Your task to perform on an android device: open app "PlayWell" (install if not already installed) Image 0: 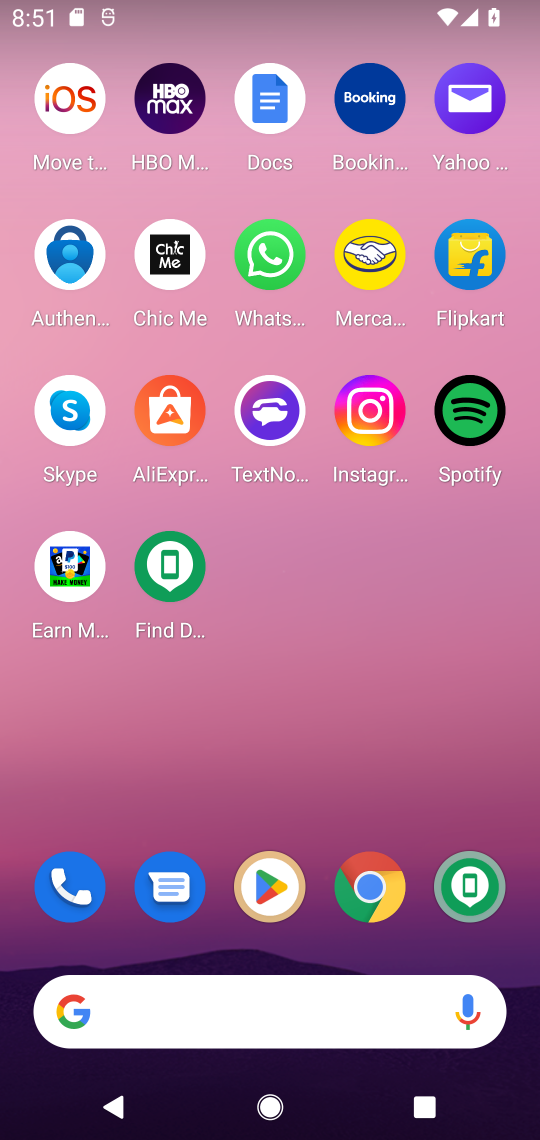
Step 0: click (258, 875)
Your task to perform on an android device: open app "PlayWell" (install if not already installed) Image 1: 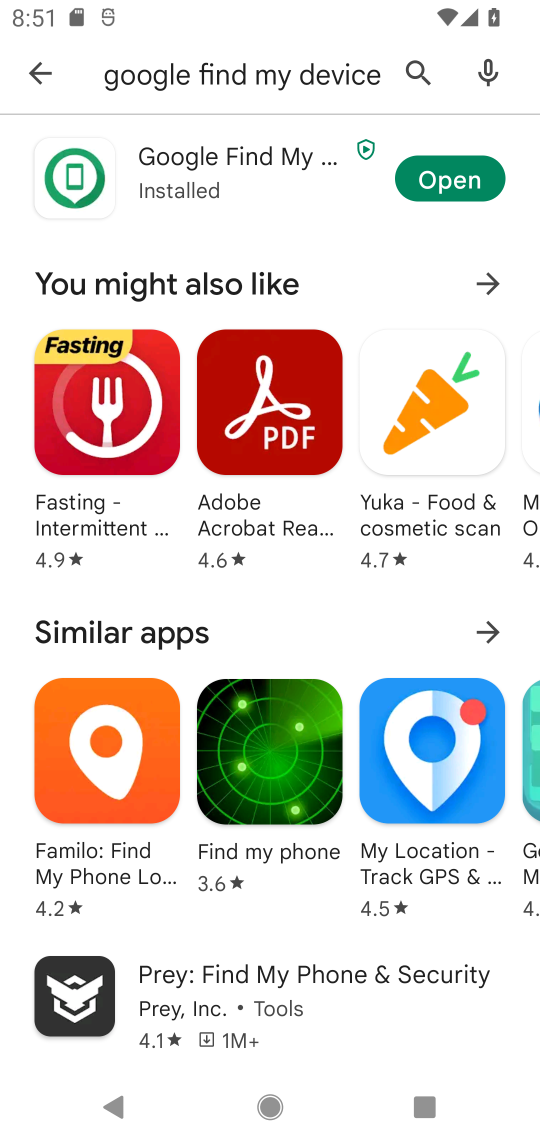
Step 1: click (409, 86)
Your task to perform on an android device: open app "PlayWell" (install if not already installed) Image 2: 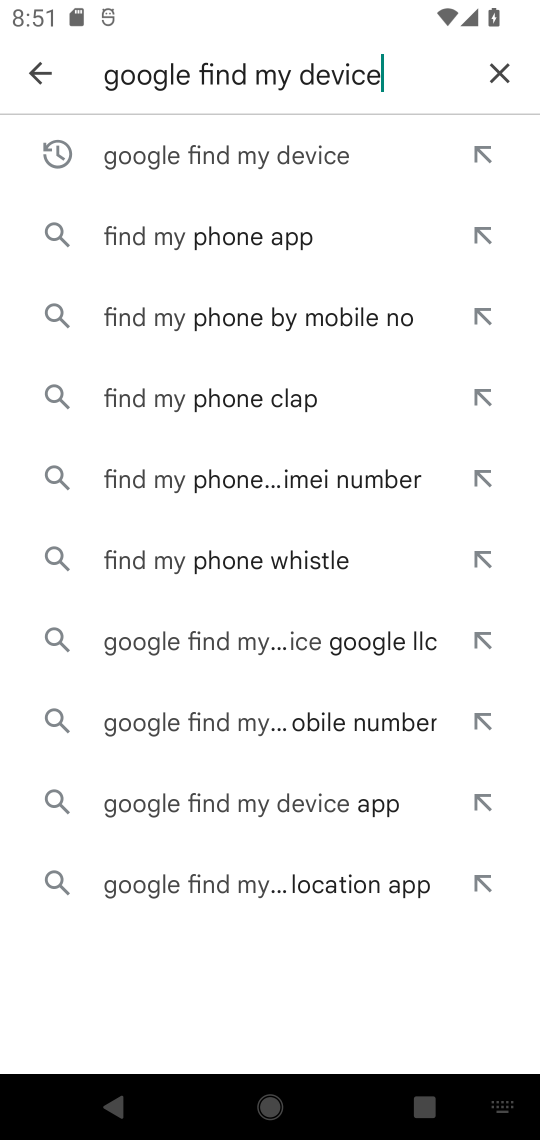
Step 2: click (507, 85)
Your task to perform on an android device: open app "PlayWell" (install if not already installed) Image 3: 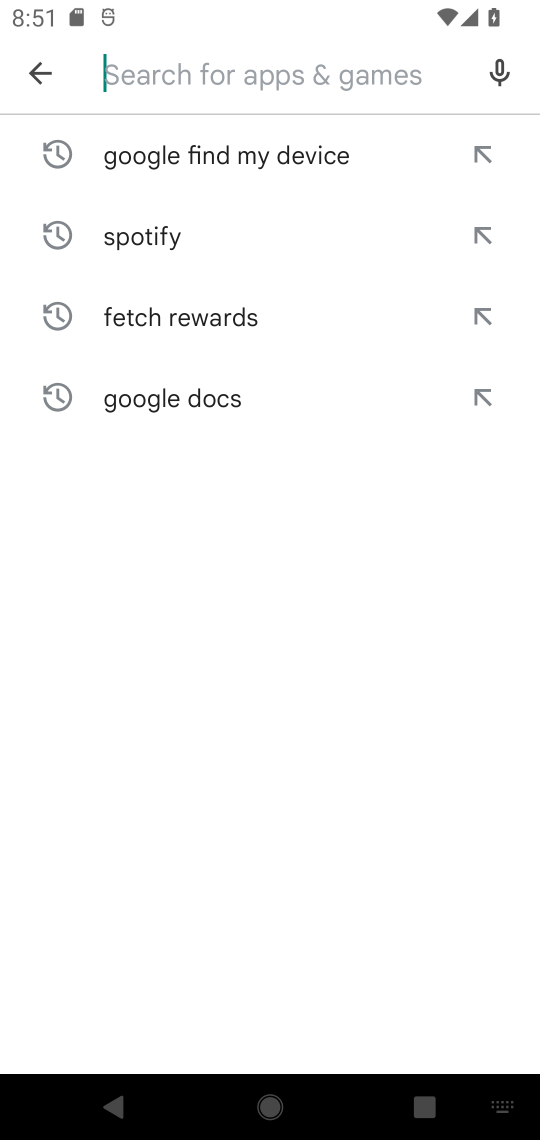
Step 3: type "playwell"
Your task to perform on an android device: open app "PlayWell" (install if not already installed) Image 4: 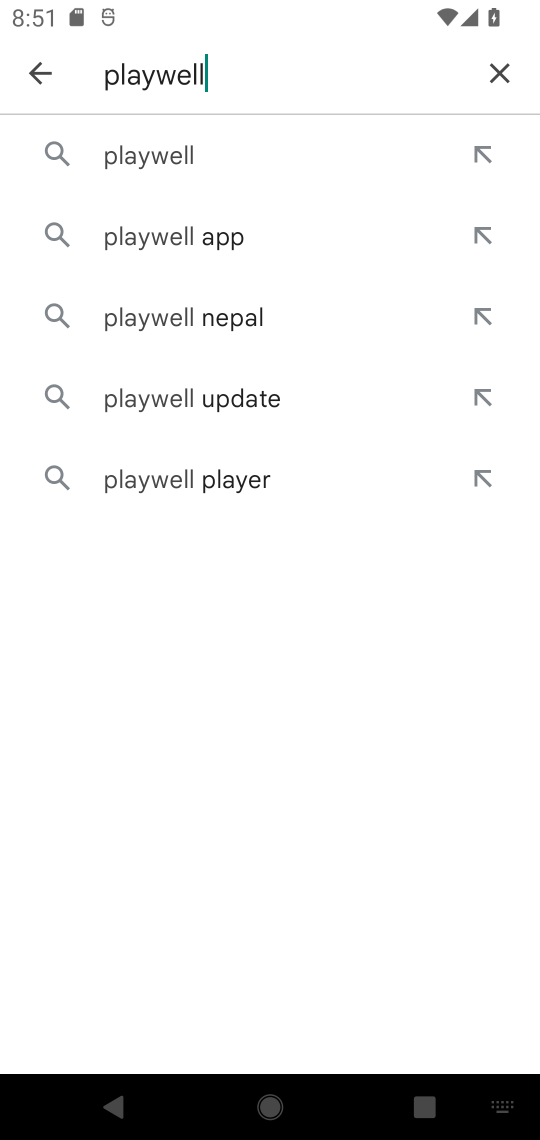
Step 4: click (331, 161)
Your task to perform on an android device: open app "PlayWell" (install if not already installed) Image 5: 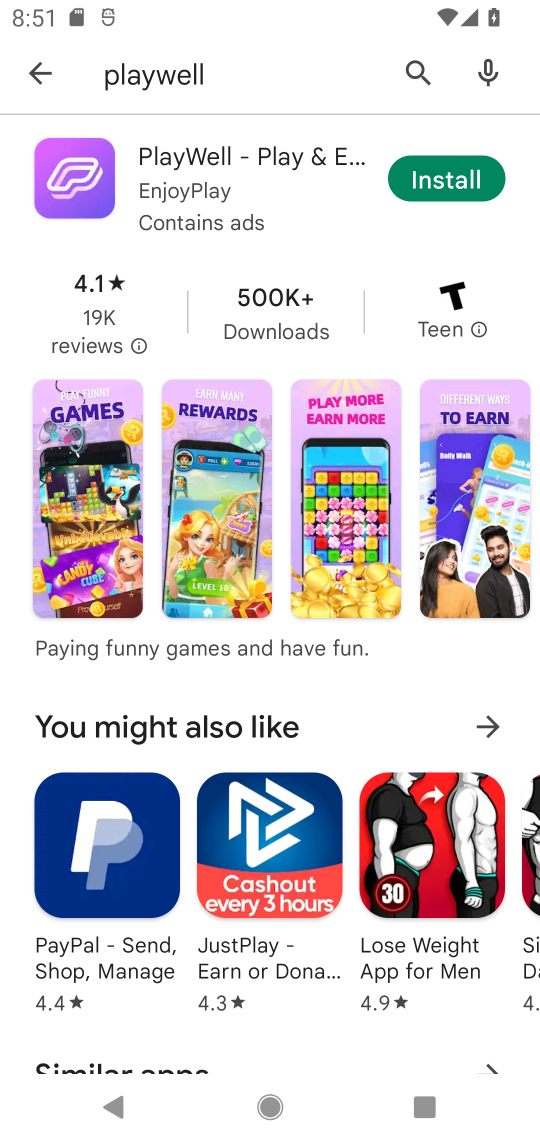
Step 5: click (427, 188)
Your task to perform on an android device: open app "PlayWell" (install if not already installed) Image 6: 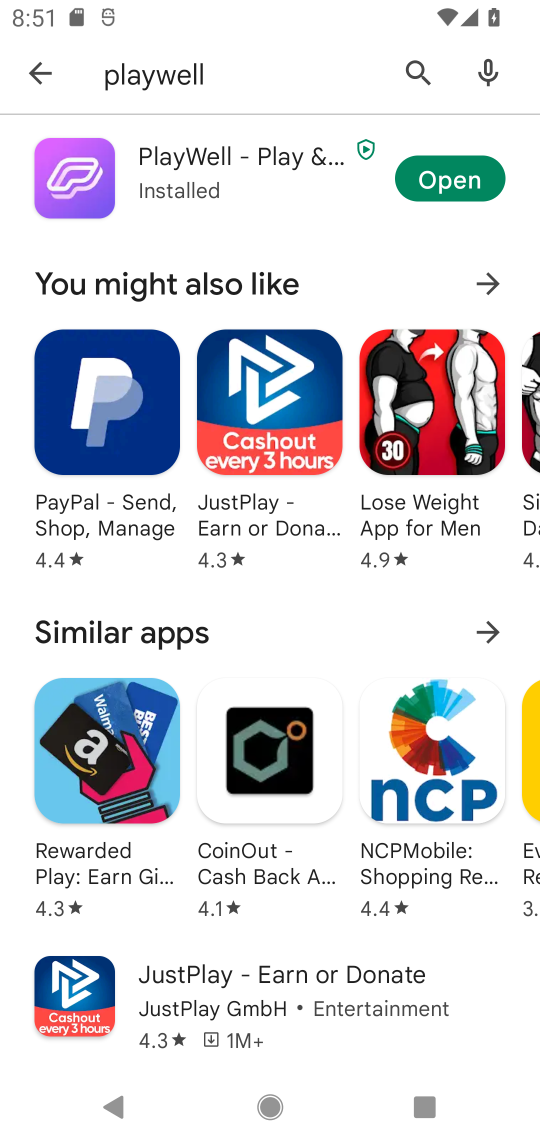
Step 6: click (427, 188)
Your task to perform on an android device: open app "PlayWell" (install if not already installed) Image 7: 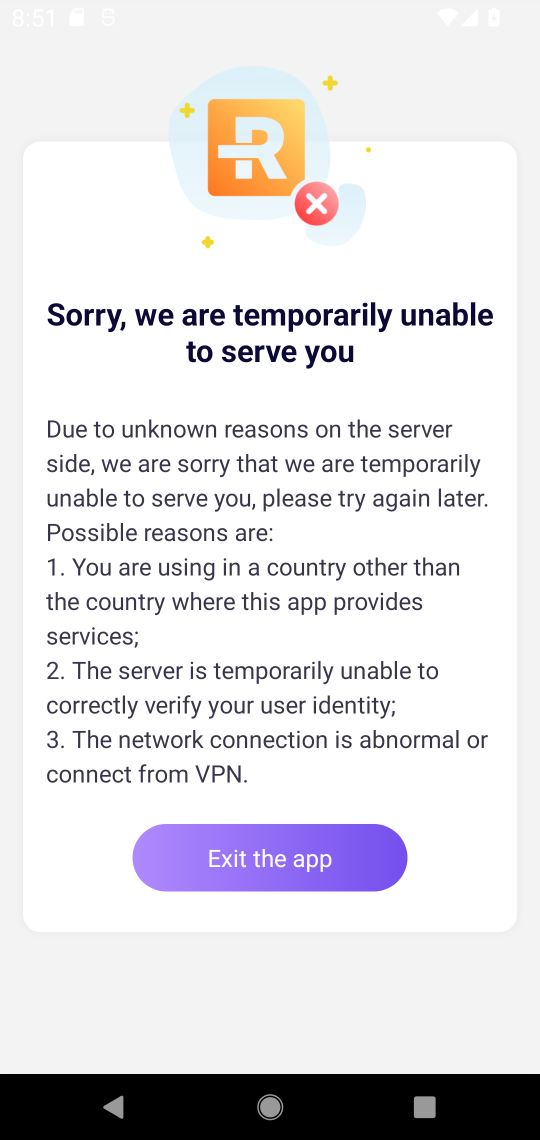
Step 7: task complete